Your task to perform on an android device: Open Amazon Image 0: 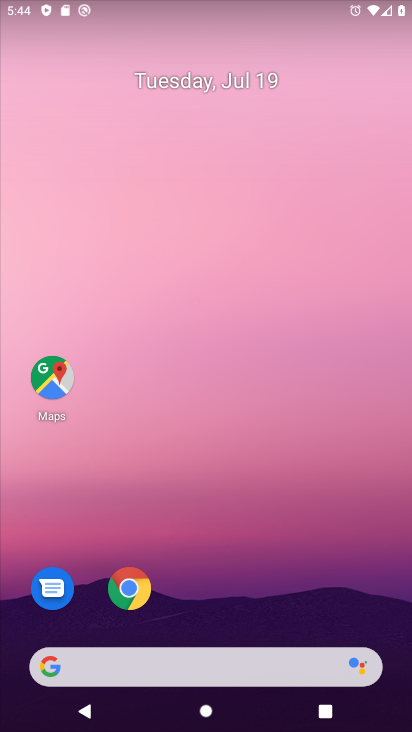
Step 0: click (132, 600)
Your task to perform on an android device: Open Amazon Image 1: 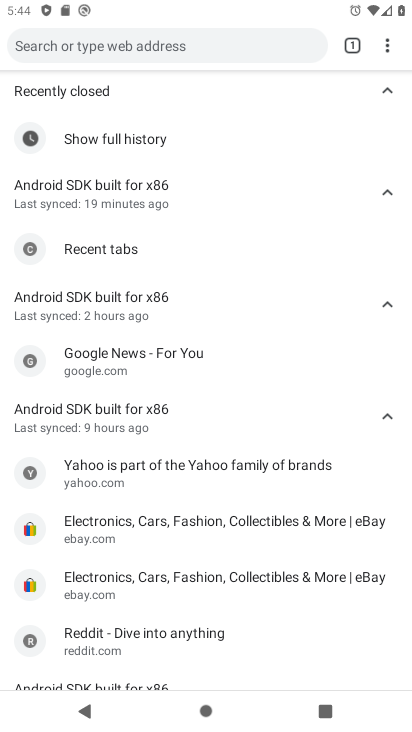
Step 1: click (358, 46)
Your task to perform on an android device: Open Amazon Image 2: 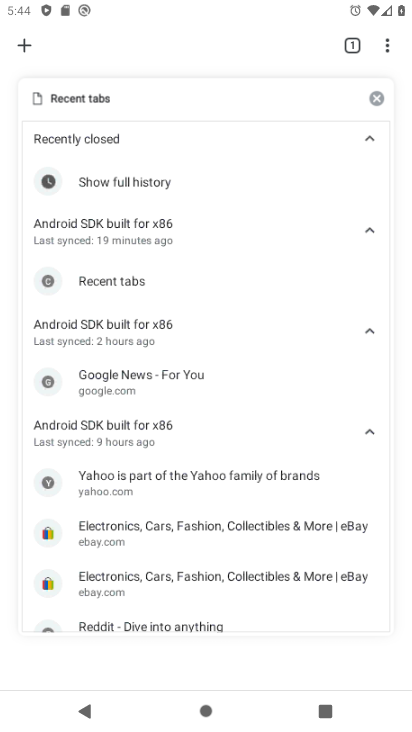
Step 2: click (30, 33)
Your task to perform on an android device: Open Amazon Image 3: 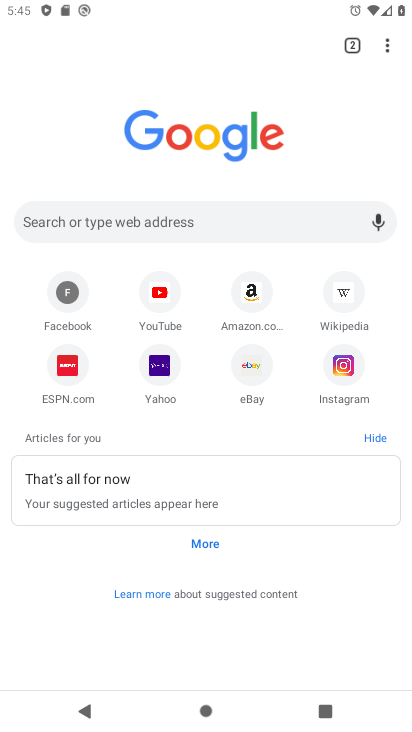
Step 3: click (247, 298)
Your task to perform on an android device: Open Amazon Image 4: 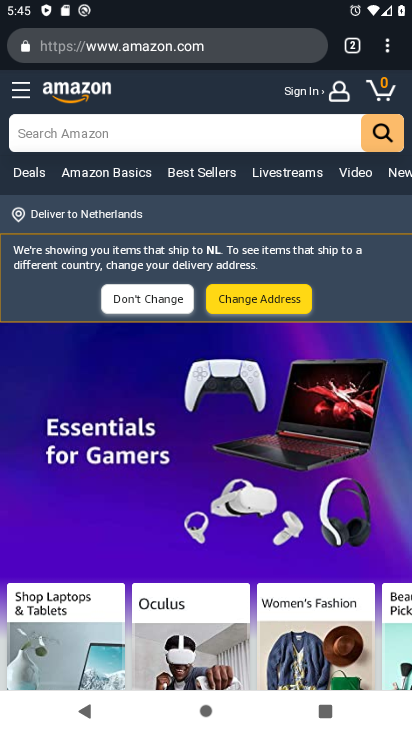
Step 4: task complete